Your task to perform on an android device: Play the last video I watched on Youtube Image 0: 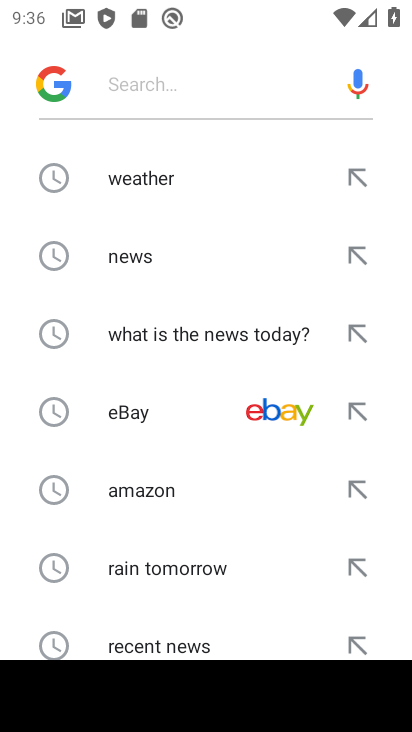
Step 0: press home button
Your task to perform on an android device: Play the last video I watched on Youtube Image 1: 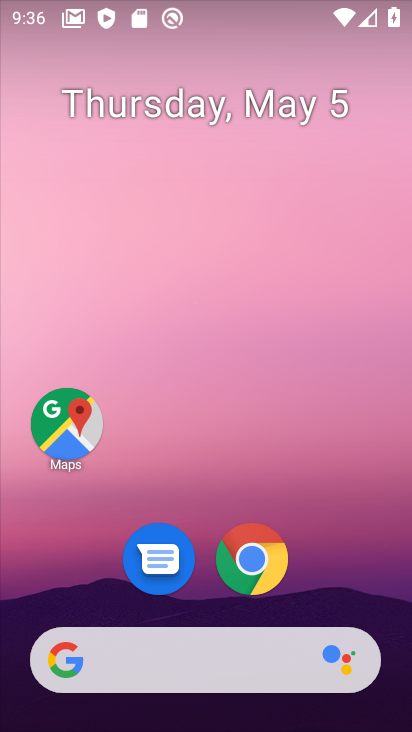
Step 1: drag from (358, 505) to (342, 37)
Your task to perform on an android device: Play the last video I watched on Youtube Image 2: 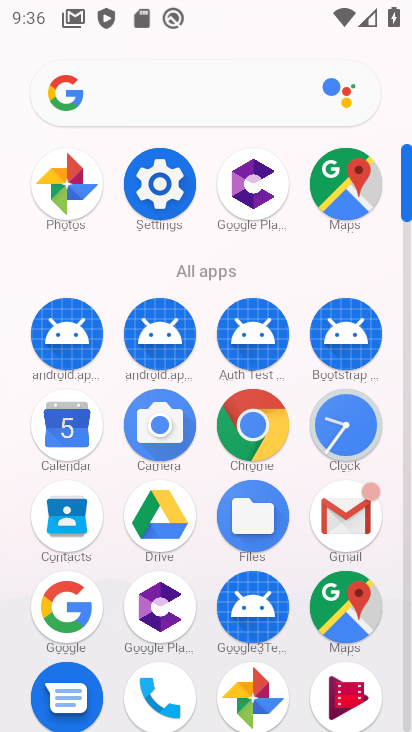
Step 2: drag from (394, 549) to (305, 165)
Your task to perform on an android device: Play the last video I watched on Youtube Image 3: 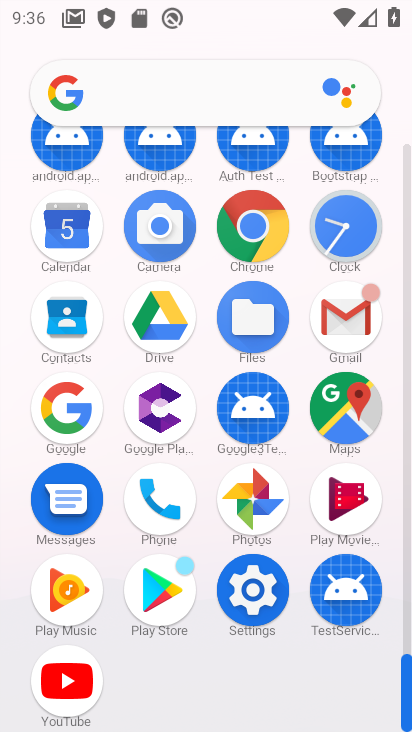
Step 3: click (32, 669)
Your task to perform on an android device: Play the last video I watched on Youtube Image 4: 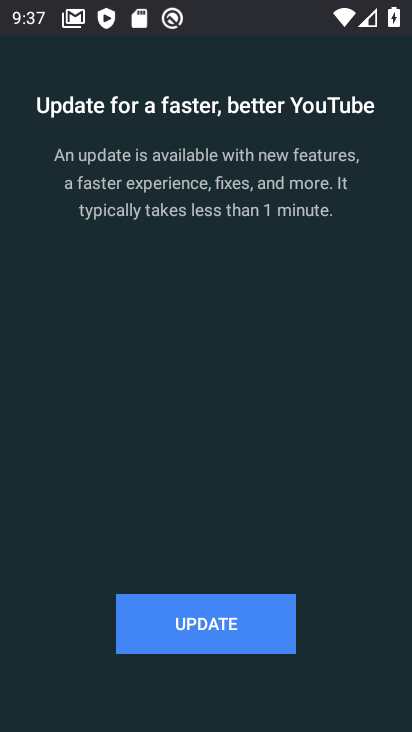
Step 4: click (173, 636)
Your task to perform on an android device: Play the last video I watched on Youtube Image 5: 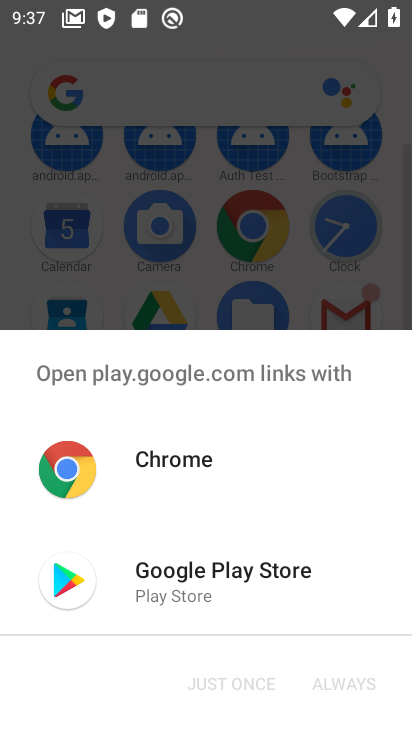
Step 5: click (107, 455)
Your task to perform on an android device: Play the last video I watched on Youtube Image 6: 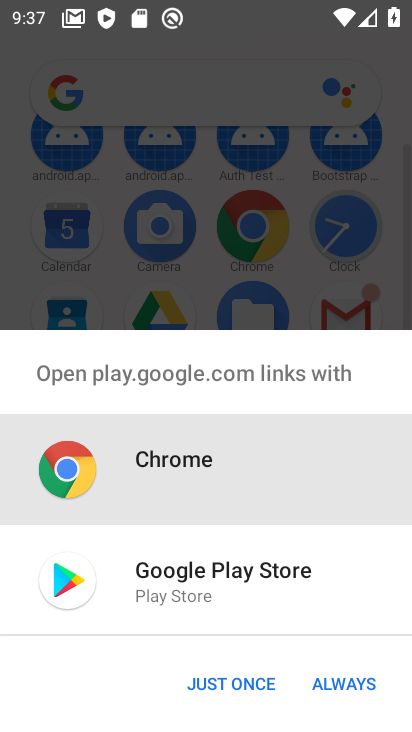
Step 6: click (179, 588)
Your task to perform on an android device: Play the last video I watched on Youtube Image 7: 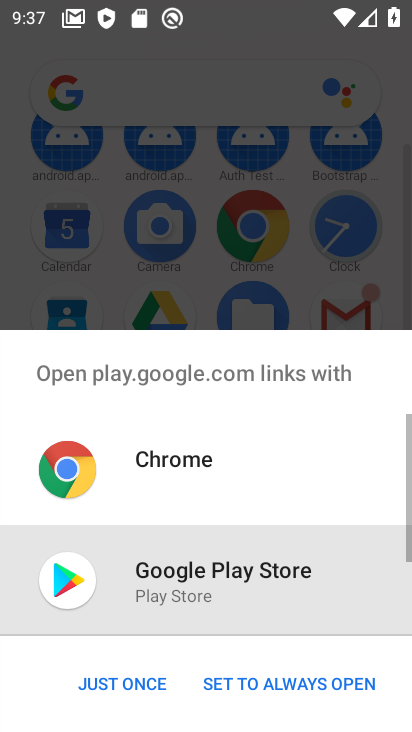
Step 7: click (138, 686)
Your task to perform on an android device: Play the last video I watched on Youtube Image 8: 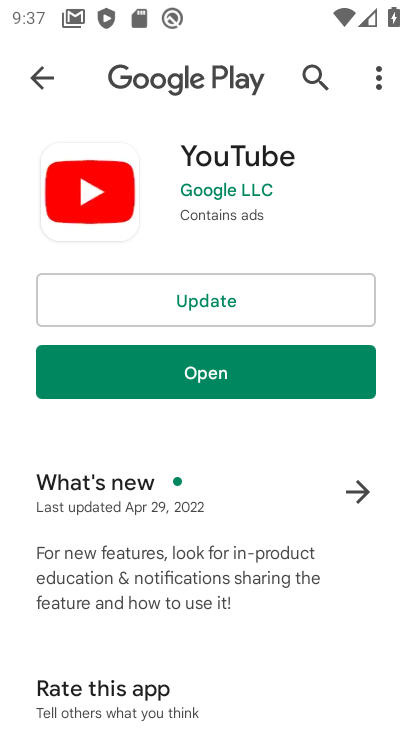
Step 8: click (228, 300)
Your task to perform on an android device: Play the last video I watched on Youtube Image 9: 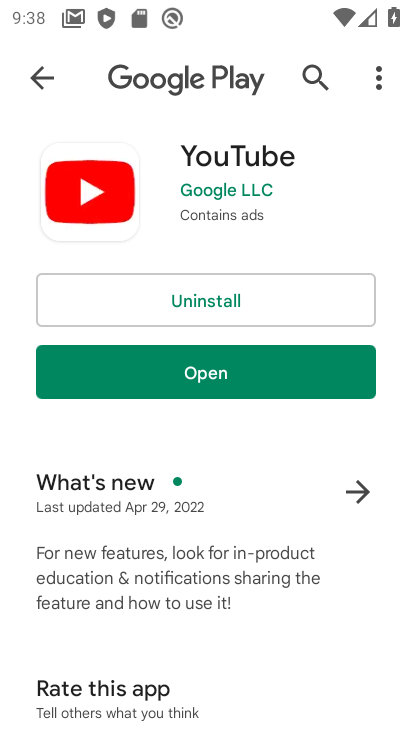
Step 9: click (187, 378)
Your task to perform on an android device: Play the last video I watched on Youtube Image 10: 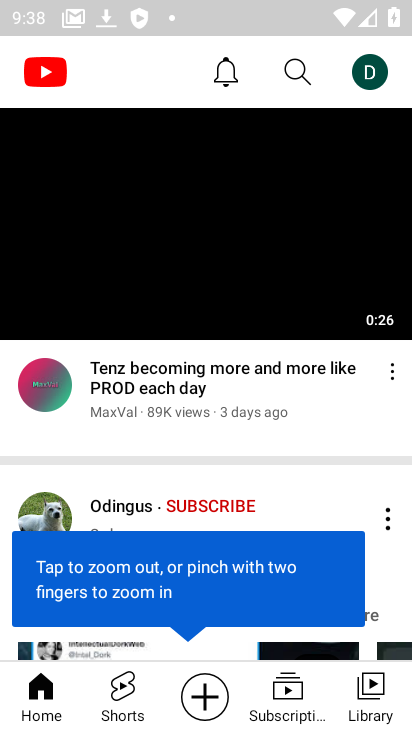
Step 10: click (363, 682)
Your task to perform on an android device: Play the last video I watched on Youtube Image 11: 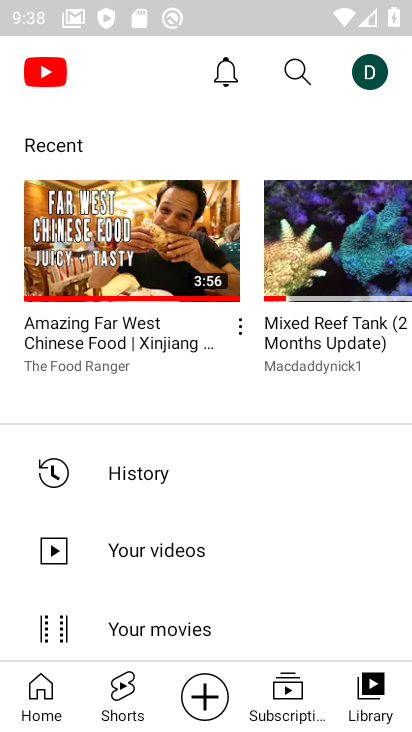
Step 11: click (125, 284)
Your task to perform on an android device: Play the last video I watched on Youtube Image 12: 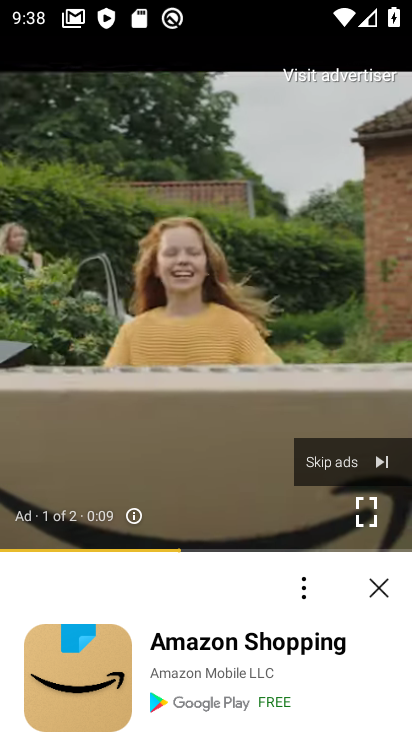
Step 12: click (324, 474)
Your task to perform on an android device: Play the last video I watched on Youtube Image 13: 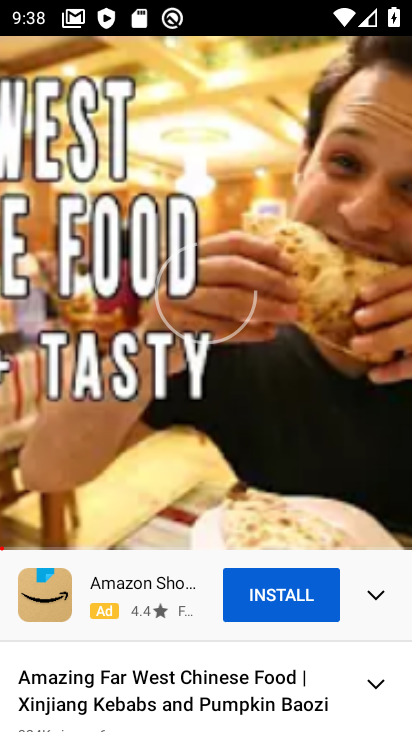
Step 13: click (318, 455)
Your task to perform on an android device: Play the last video I watched on Youtube Image 14: 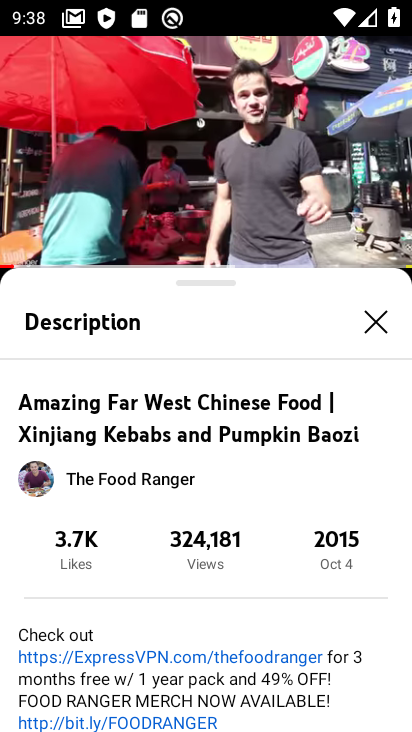
Step 14: task complete